Your task to perform on an android device: delete the emails in spam in the gmail app Image 0: 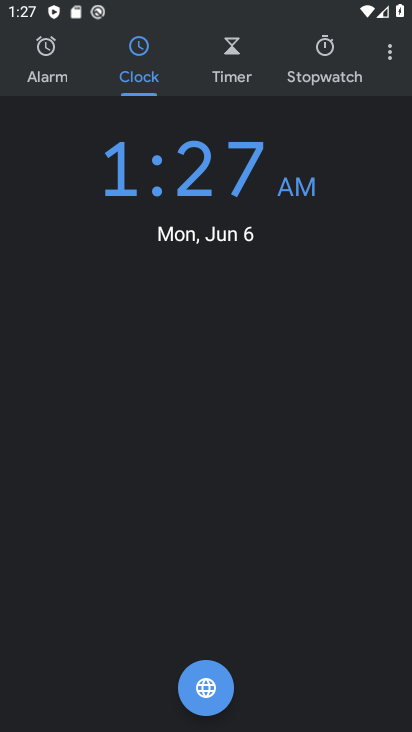
Step 0: press home button
Your task to perform on an android device: delete the emails in spam in the gmail app Image 1: 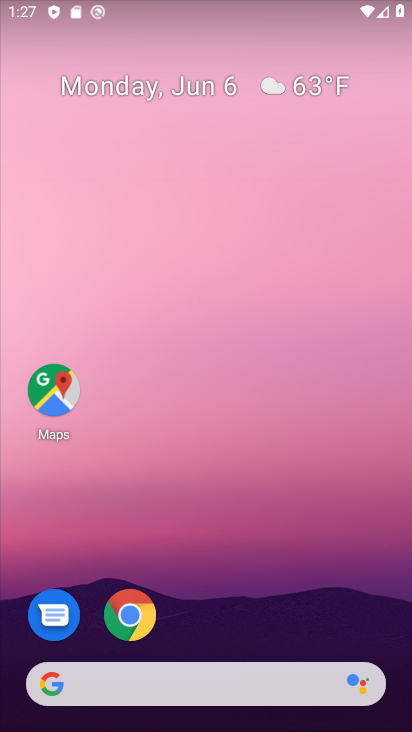
Step 1: drag from (145, 649) to (239, 174)
Your task to perform on an android device: delete the emails in spam in the gmail app Image 2: 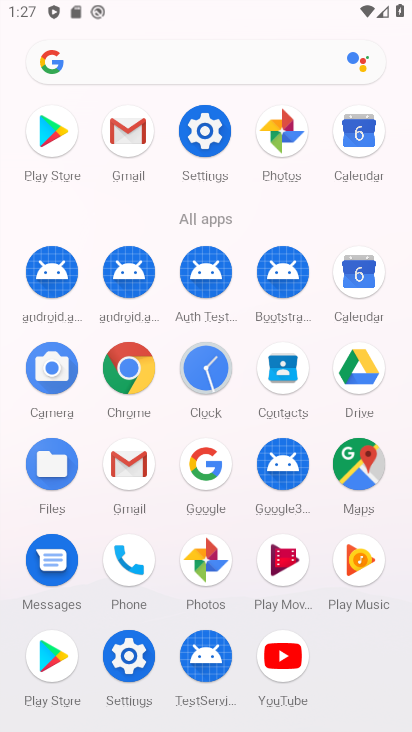
Step 2: click (131, 481)
Your task to perform on an android device: delete the emails in spam in the gmail app Image 3: 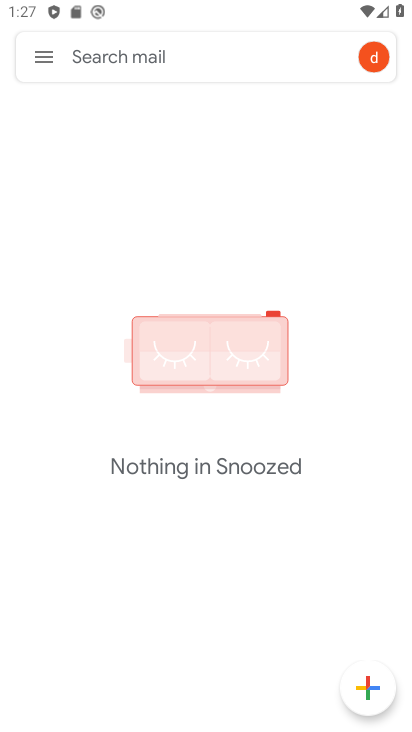
Step 3: click (66, 57)
Your task to perform on an android device: delete the emails in spam in the gmail app Image 4: 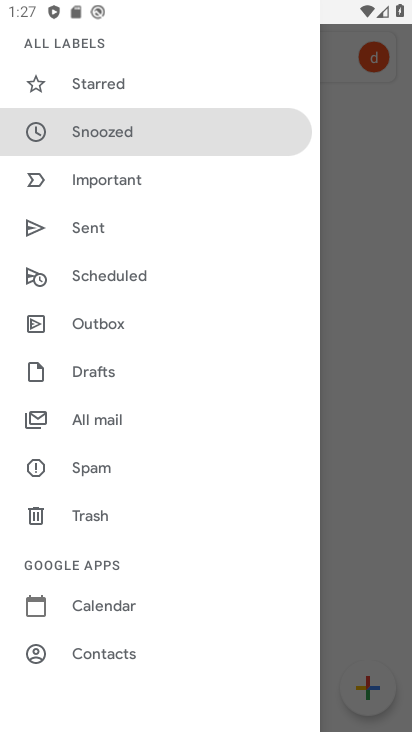
Step 4: click (140, 462)
Your task to perform on an android device: delete the emails in spam in the gmail app Image 5: 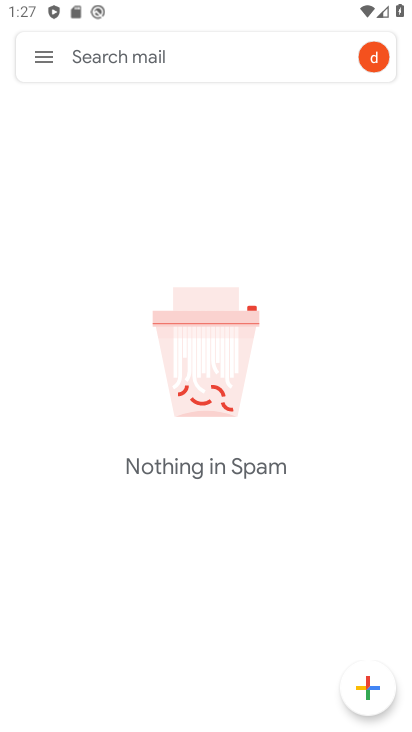
Step 5: task complete